Your task to perform on an android device: change your default location settings in chrome Image 0: 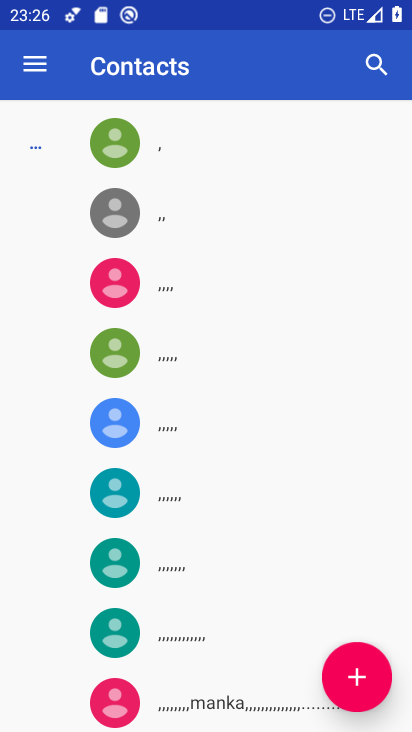
Step 0: press home button
Your task to perform on an android device: change your default location settings in chrome Image 1: 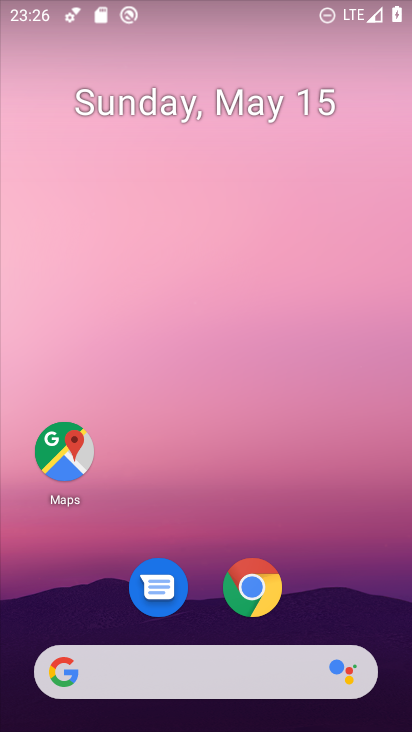
Step 1: click (276, 587)
Your task to perform on an android device: change your default location settings in chrome Image 2: 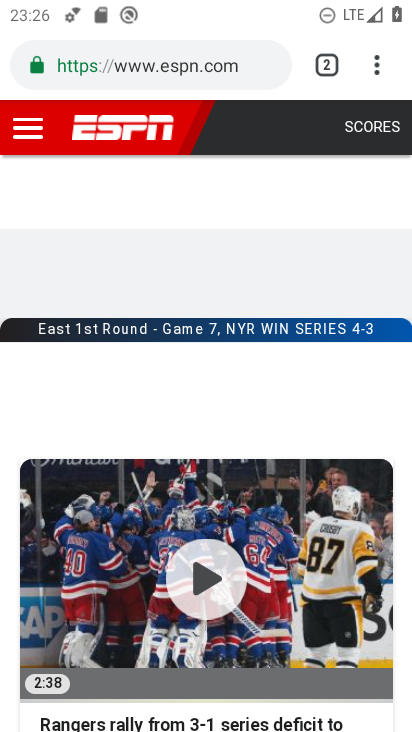
Step 2: drag from (376, 67) to (170, 643)
Your task to perform on an android device: change your default location settings in chrome Image 3: 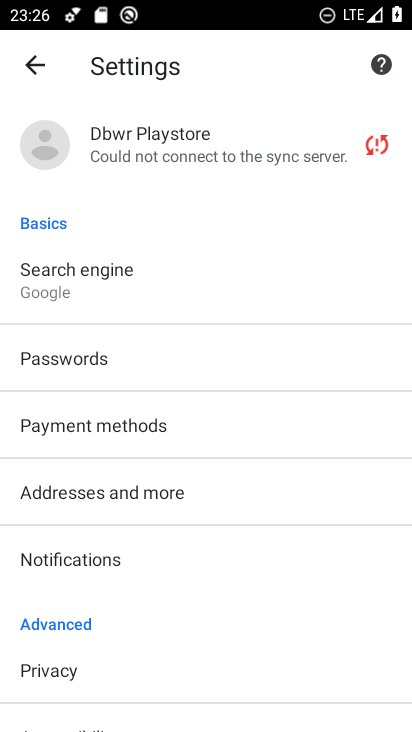
Step 3: drag from (185, 554) to (215, 316)
Your task to perform on an android device: change your default location settings in chrome Image 4: 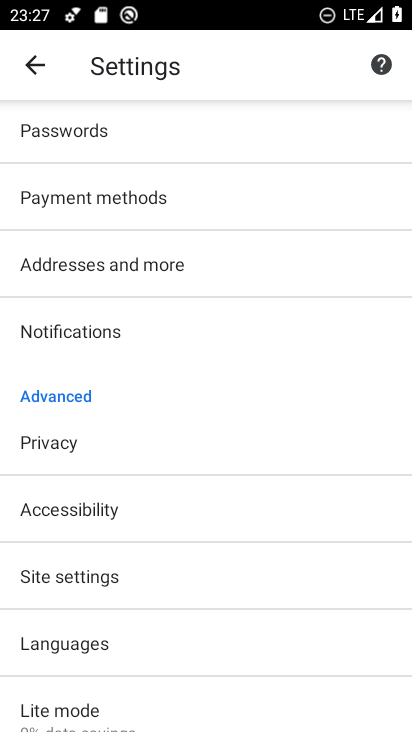
Step 4: drag from (151, 644) to (166, 501)
Your task to perform on an android device: change your default location settings in chrome Image 5: 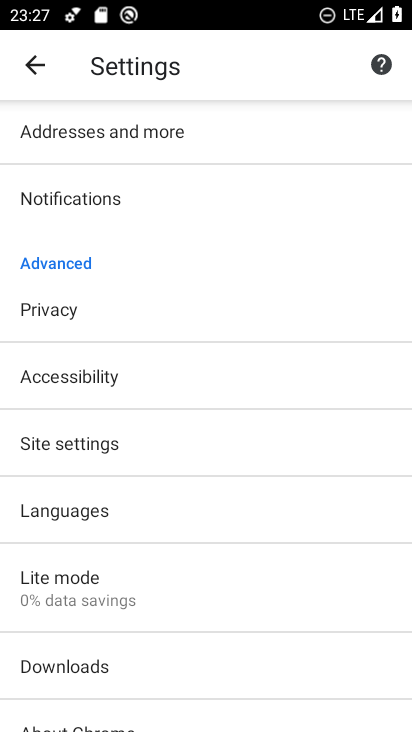
Step 5: click (134, 449)
Your task to perform on an android device: change your default location settings in chrome Image 6: 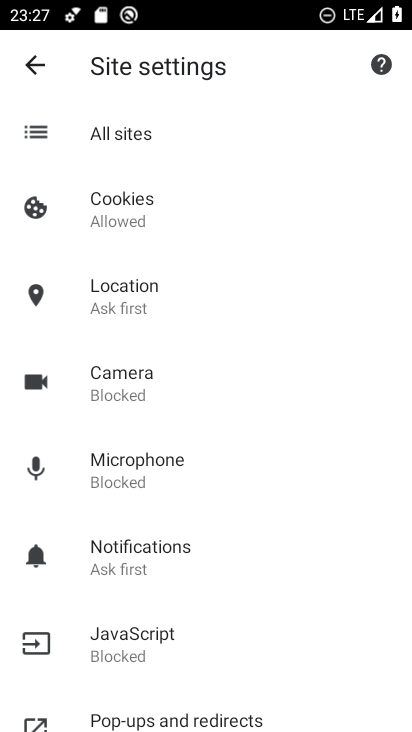
Step 6: click (158, 312)
Your task to perform on an android device: change your default location settings in chrome Image 7: 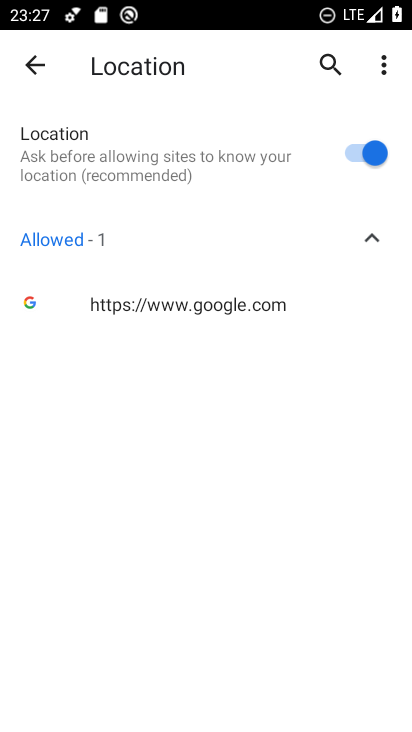
Step 7: click (349, 156)
Your task to perform on an android device: change your default location settings in chrome Image 8: 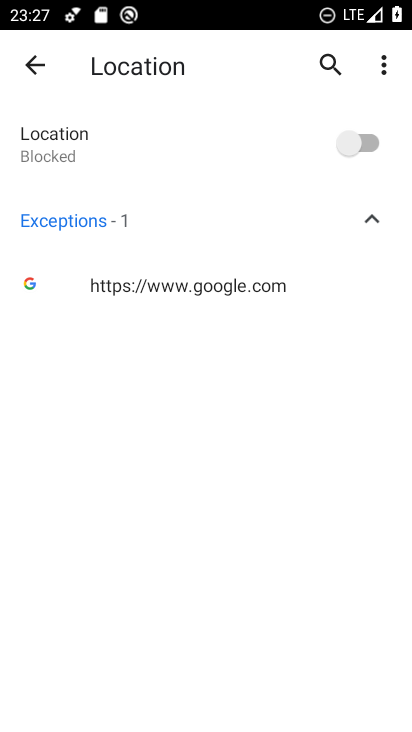
Step 8: task complete